Your task to perform on an android device: Toggle the flashlight Image 0: 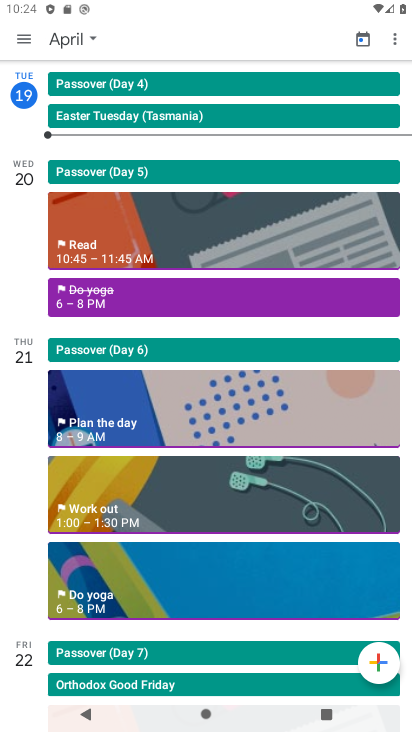
Step 0: press home button
Your task to perform on an android device: Toggle the flashlight Image 1: 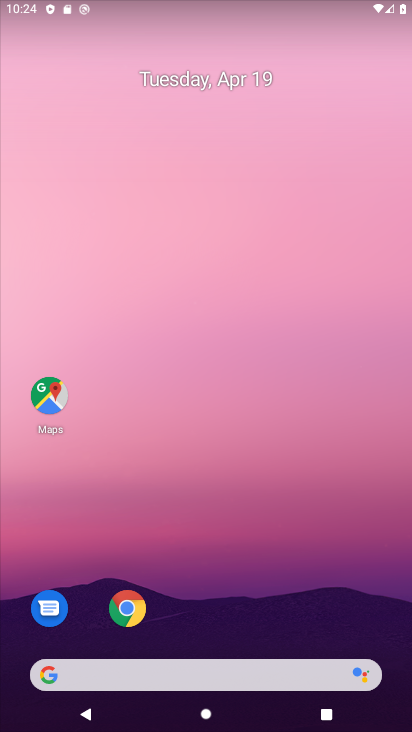
Step 1: drag from (258, 4) to (338, 502)
Your task to perform on an android device: Toggle the flashlight Image 2: 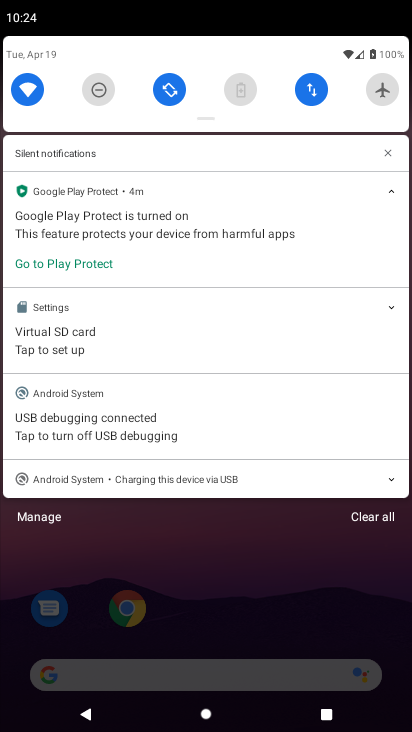
Step 2: drag from (200, 103) to (233, 559)
Your task to perform on an android device: Toggle the flashlight Image 3: 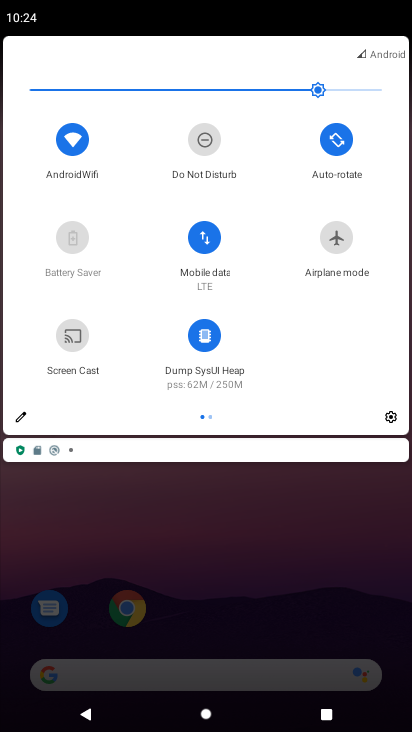
Step 3: drag from (386, 349) to (7, 330)
Your task to perform on an android device: Toggle the flashlight Image 4: 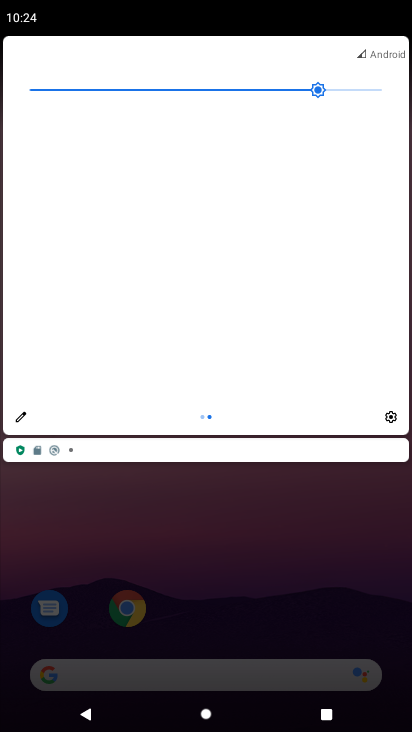
Step 4: click (17, 413)
Your task to perform on an android device: Toggle the flashlight Image 5: 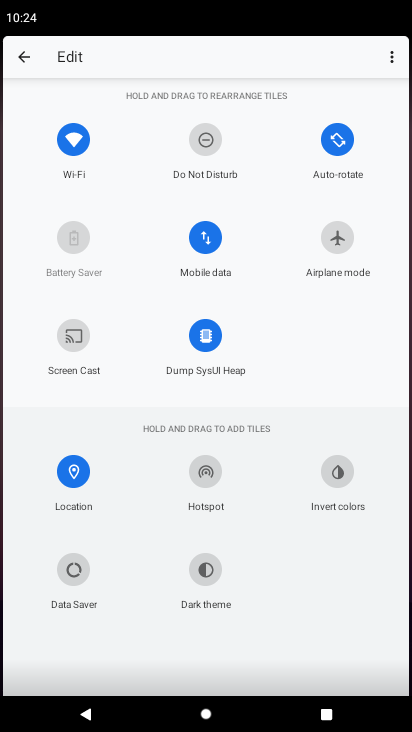
Step 5: task complete